Your task to perform on an android device: toggle priority inbox in the gmail app Image 0: 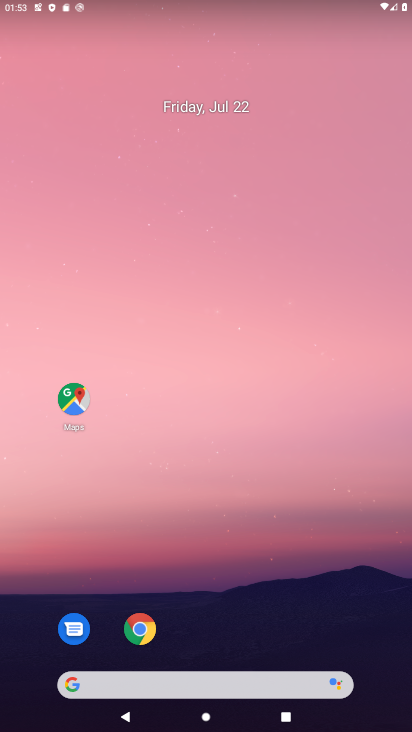
Step 0: drag from (23, 581) to (234, 198)
Your task to perform on an android device: toggle priority inbox in the gmail app Image 1: 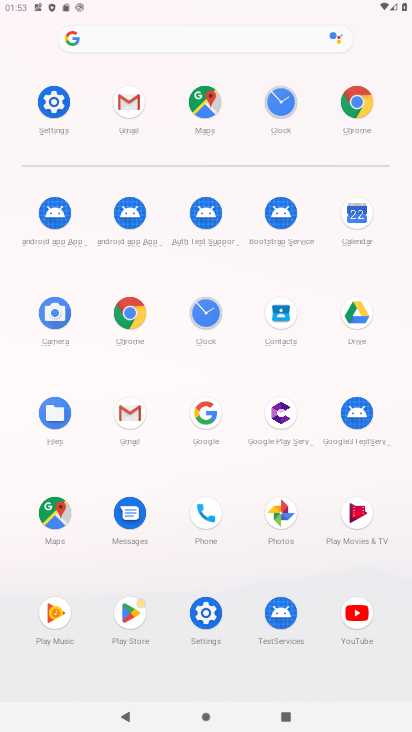
Step 1: click (137, 413)
Your task to perform on an android device: toggle priority inbox in the gmail app Image 2: 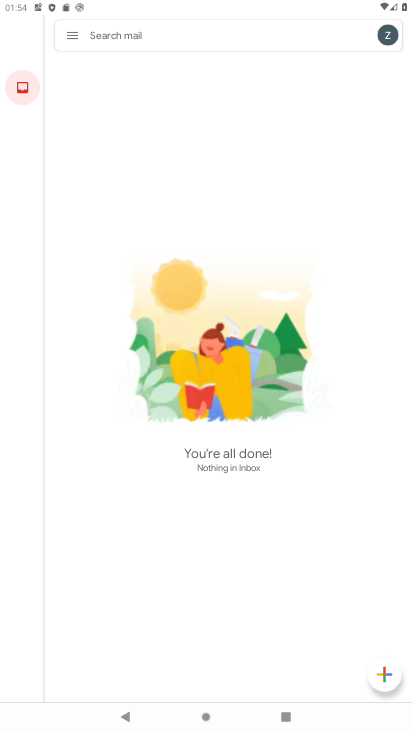
Step 2: click (63, 33)
Your task to perform on an android device: toggle priority inbox in the gmail app Image 3: 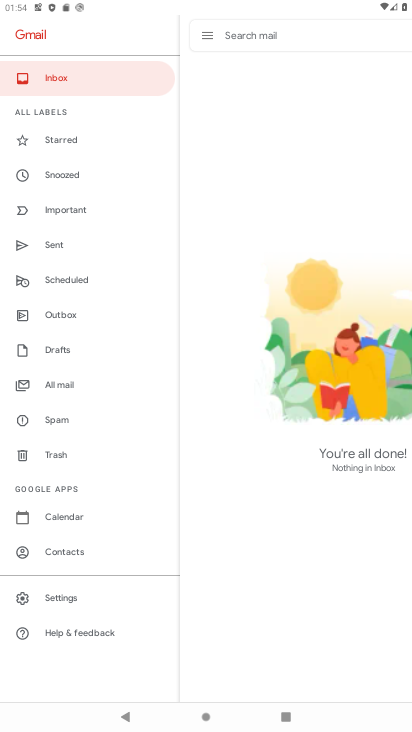
Step 3: click (69, 604)
Your task to perform on an android device: toggle priority inbox in the gmail app Image 4: 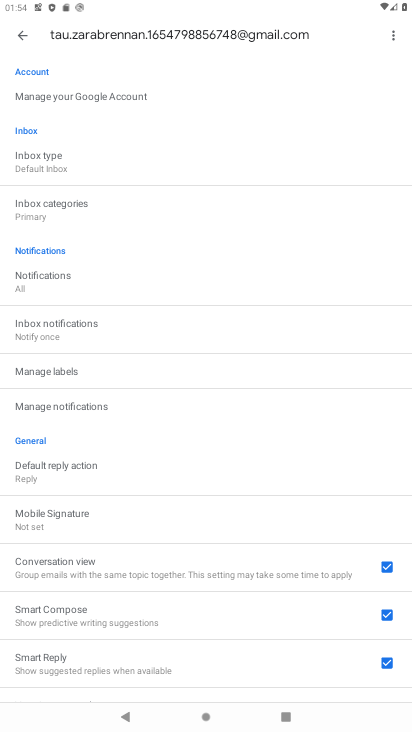
Step 4: click (53, 155)
Your task to perform on an android device: toggle priority inbox in the gmail app Image 5: 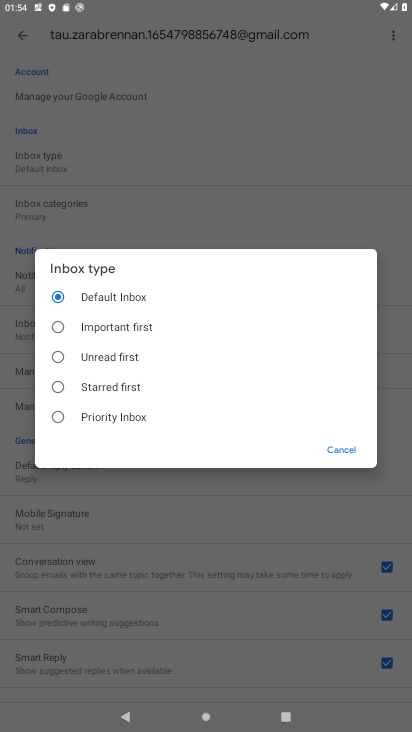
Step 5: click (84, 413)
Your task to perform on an android device: toggle priority inbox in the gmail app Image 6: 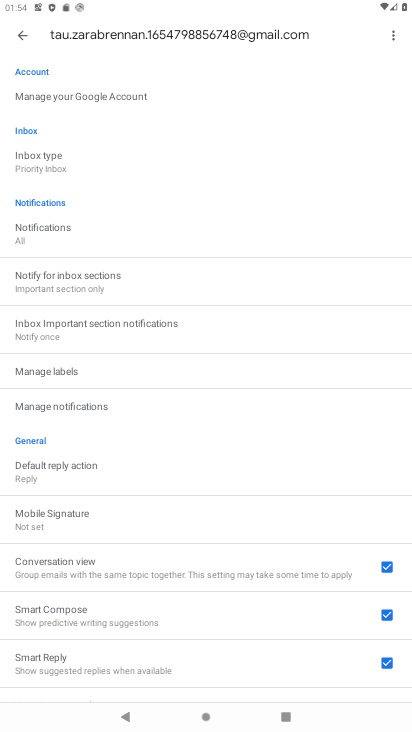
Step 6: task complete